Your task to perform on an android device: Go to location settings Image 0: 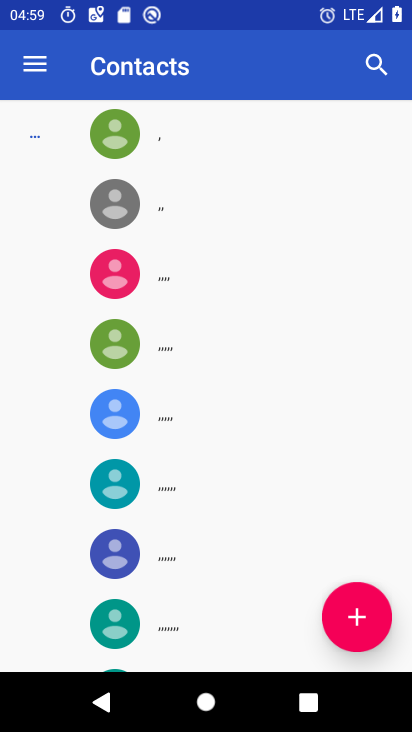
Step 0: press back button
Your task to perform on an android device: Go to location settings Image 1: 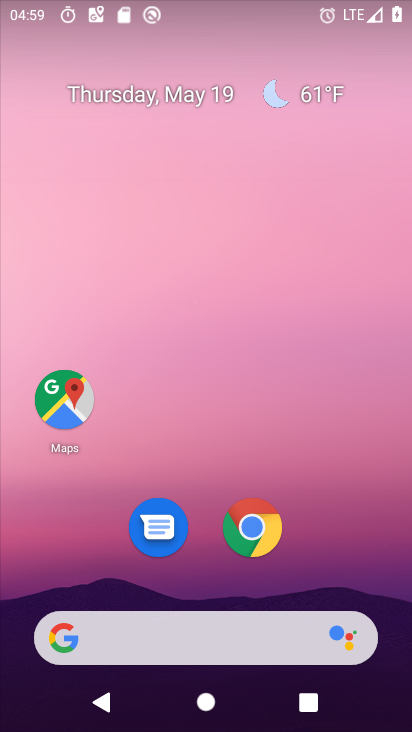
Step 1: drag from (211, 535) to (282, 78)
Your task to perform on an android device: Go to location settings Image 2: 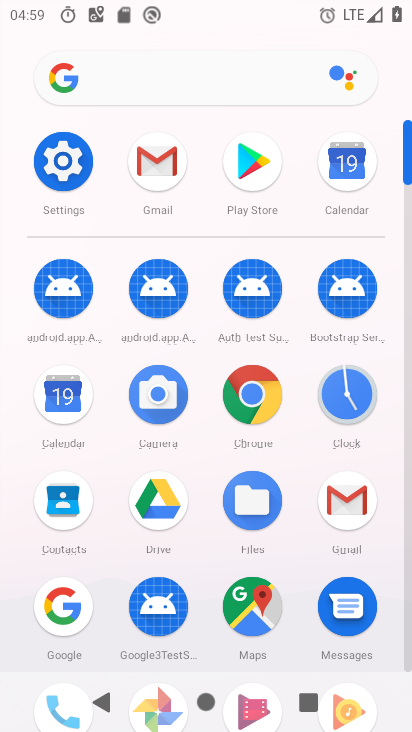
Step 2: click (52, 160)
Your task to perform on an android device: Go to location settings Image 3: 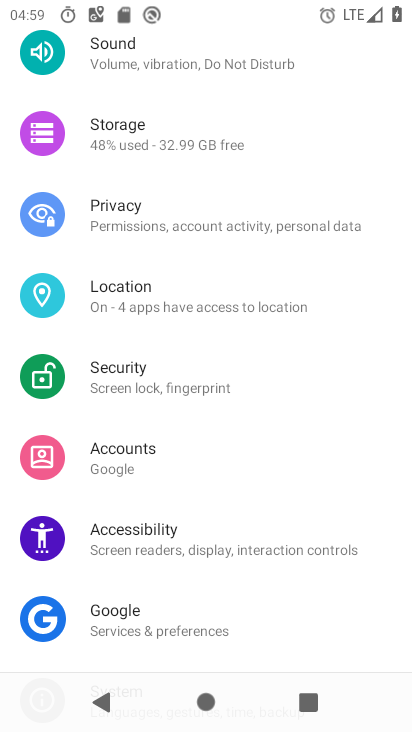
Step 3: click (156, 290)
Your task to perform on an android device: Go to location settings Image 4: 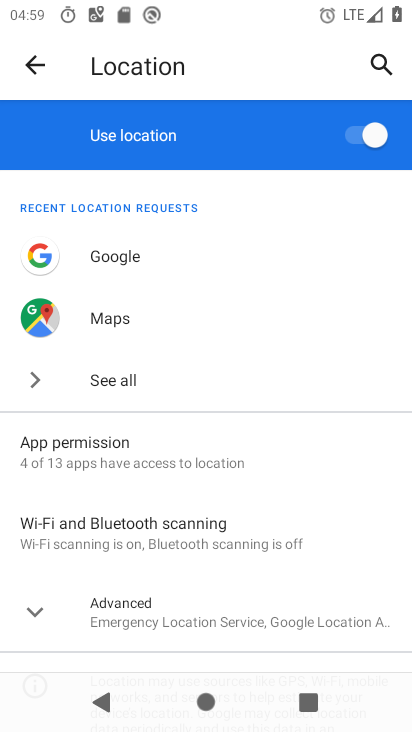
Step 4: task complete